Your task to perform on an android device: Go to network settings Image 0: 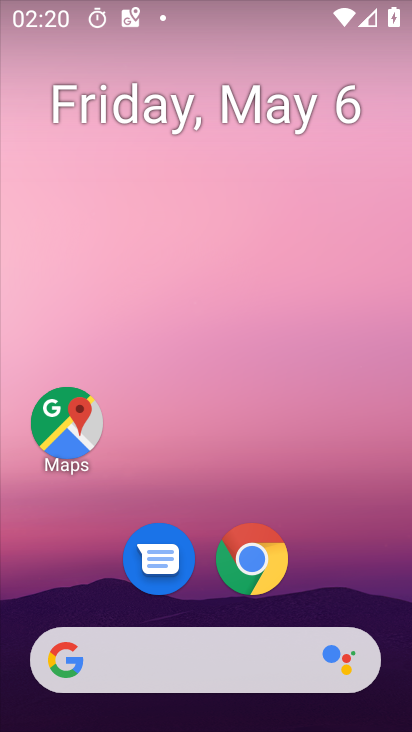
Step 0: drag from (326, 614) to (360, 2)
Your task to perform on an android device: Go to network settings Image 1: 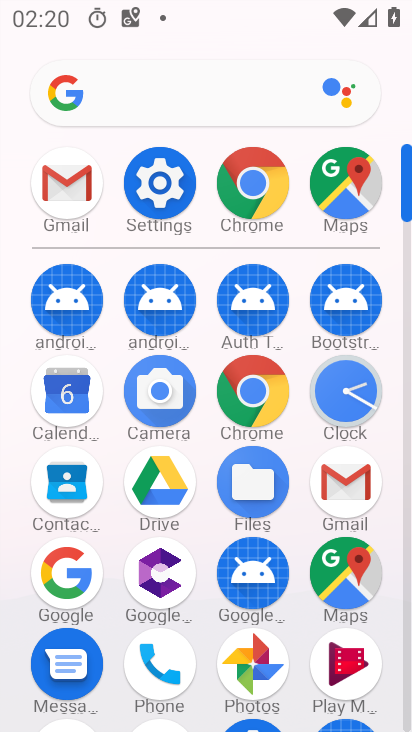
Step 1: drag from (199, 638) to (204, 200)
Your task to perform on an android device: Go to network settings Image 2: 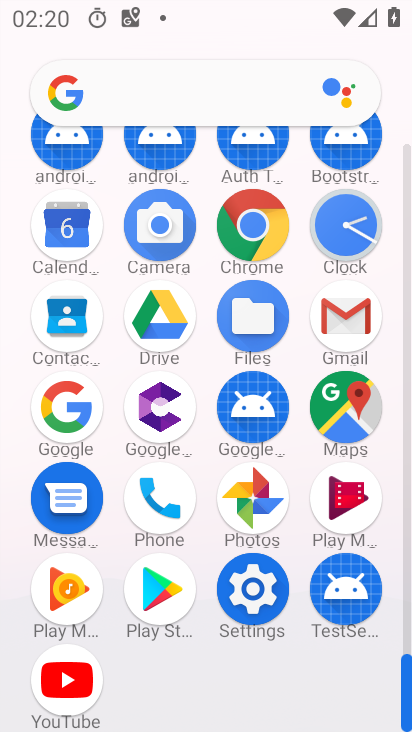
Step 2: click (255, 583)
Your task to perform on an android device: Go to network settings Image 3: 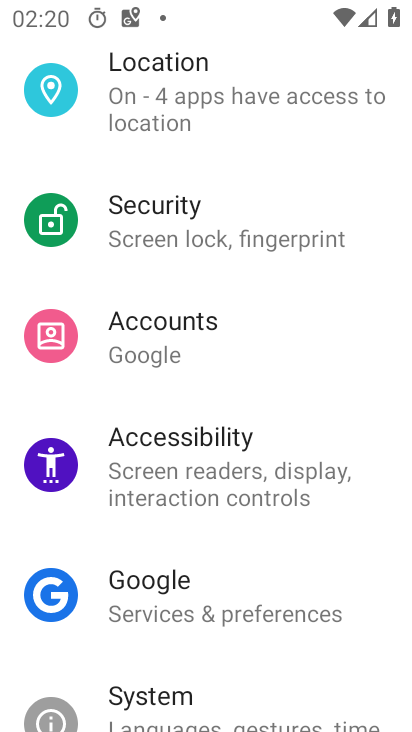
Step 3: drag from (276, 153) to (274, 722)
Your task to perform on an android device: Go to network settings Image 4: 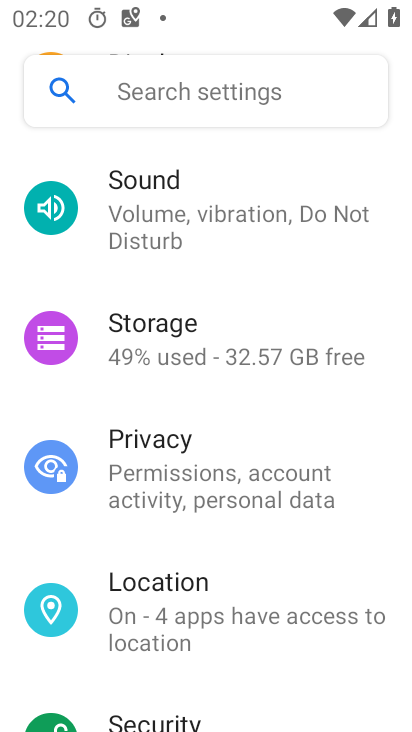
Step 4: drag from (224, 203) to (215, 705)
Your task to perform on an android device: Go to network settings Image 5: 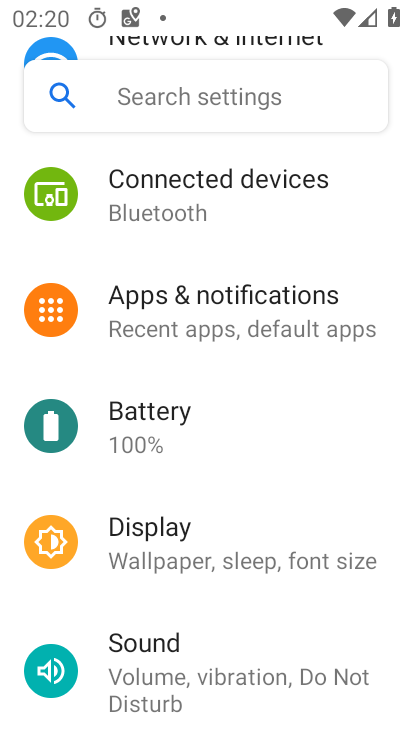
Step 5: drag from (219, 205) to (246, 658)
Your task to perform on an android device: Go to network settings Image 6: 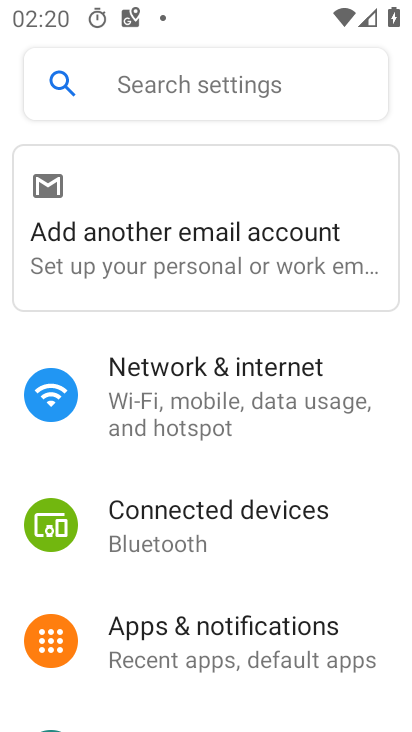
Step 6: click (241, 423)
Your task to perform on an android device: Go to network settings Image 7: 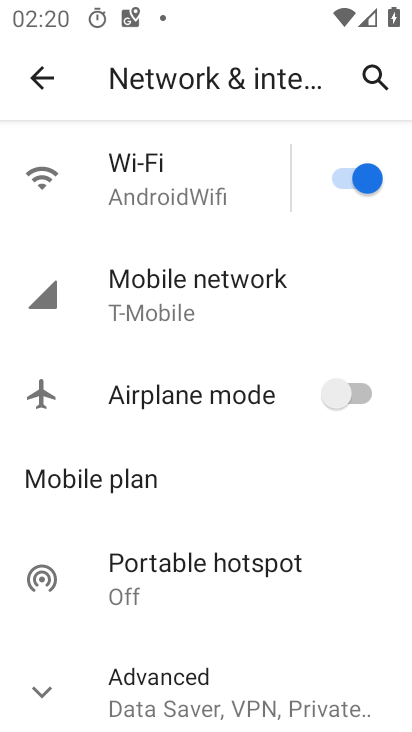
Step 7: click (232, 296)
Your task to perform on an android device: Go to network settings Image 8: 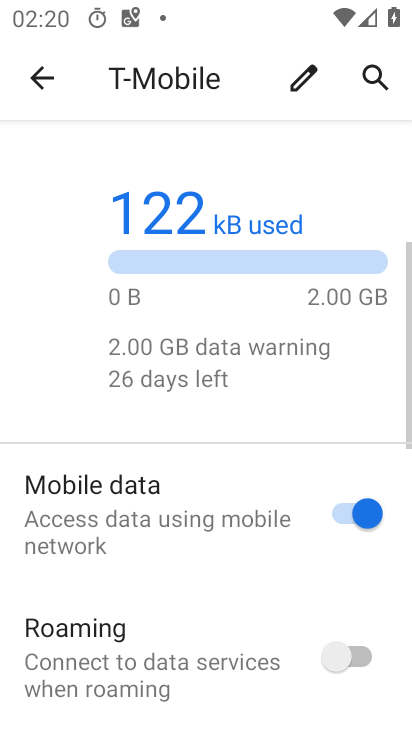
Step 8: task complete